Your task to perform on an android device: Go to Reddit.com Image 0: 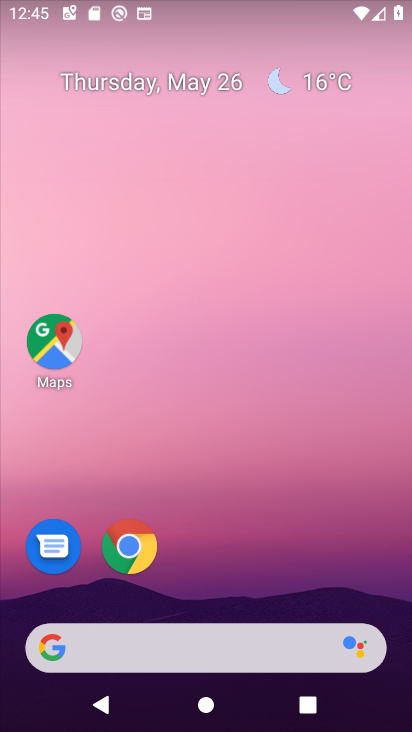
Step 0: click (130, 548)
Your task to perform on an android device: Go to Reddit.com Image 1: 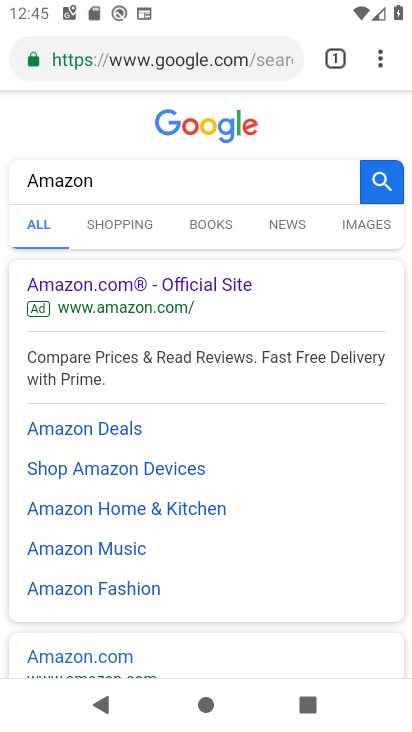
Step 1: click (102, 56)
Your task to perform on an android device: Go to Reddit.com Image 2: 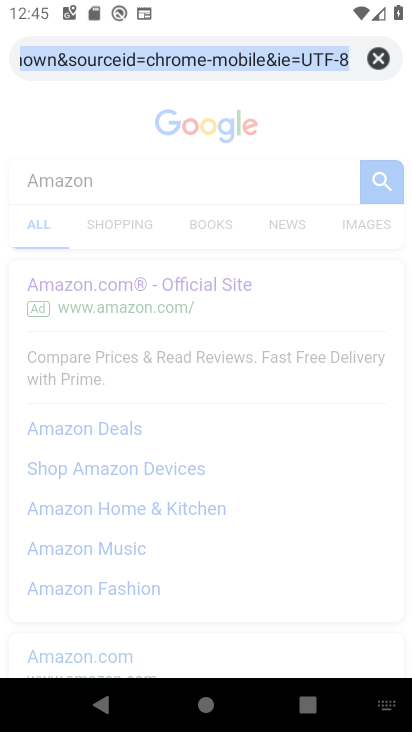
Step 2: type "Reddit.com"
Your task to perform on an android device: Go to Reddit.com Image 3: 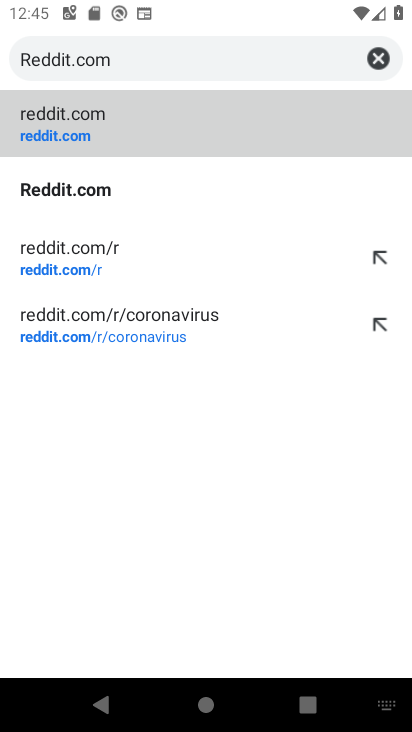
Step 3: click (74, 134)
Your task to perform on an android device: Go to Reddit.com Image 4: 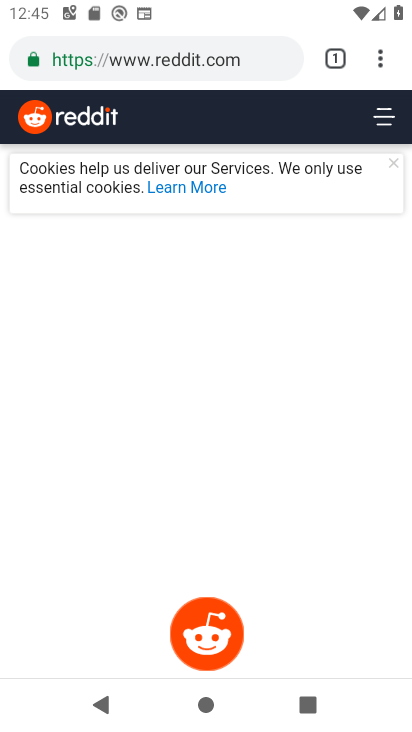
Step 4: task complete